Your task to perform on an android device: What's the weather going to be this weekend? Image 0: 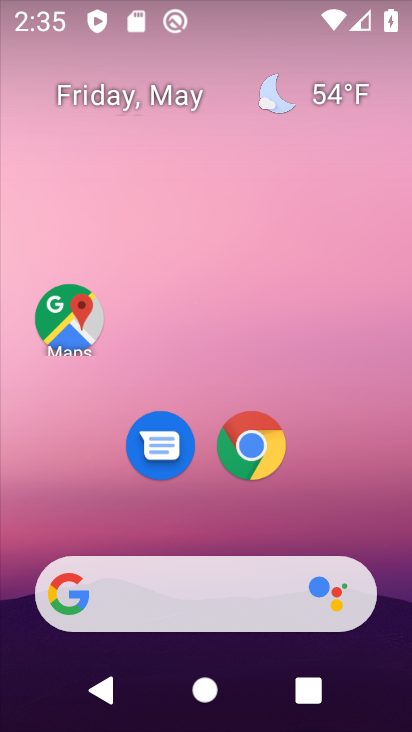
Step 0: drag from (390, 499) to (373, 122)
Your task to perform on an android device: What's the weather going to be this weekend? Image 1: 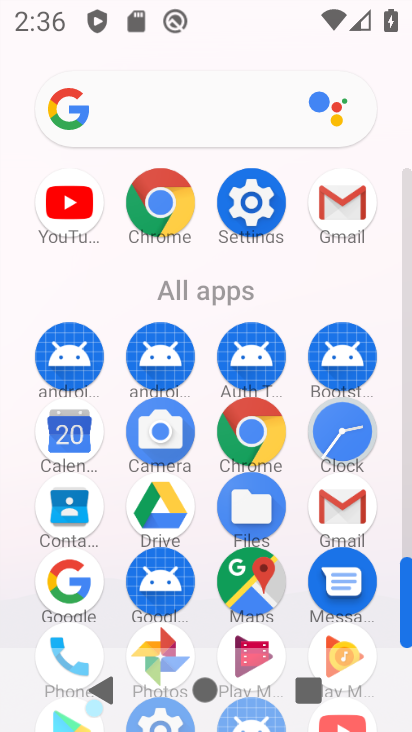
Step 1: click (243, 431)
Your task to perform on an android device: What's the weather going to be this weekend? Image 2: 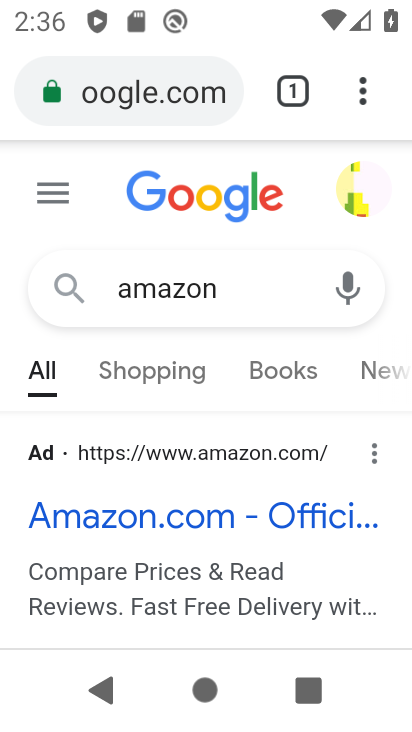
Step 2: click (145, 97)
Your task to perform on an android device: What's the weather going to be this weekend? Image 3: 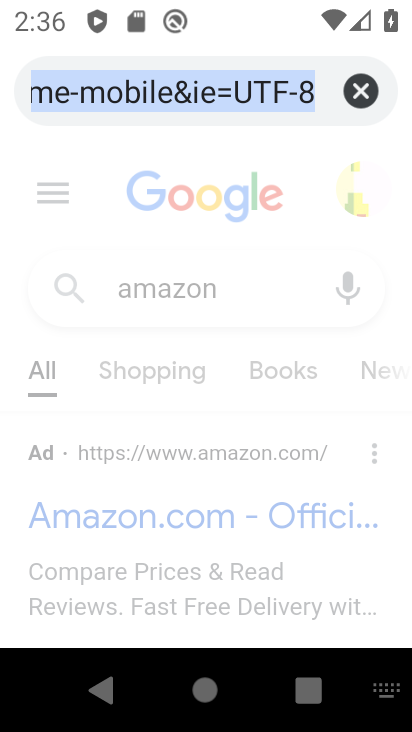
Step 3: click (365, 93)
Your task to perform on an android device: What's the weather going to be this weekend? Image 4: 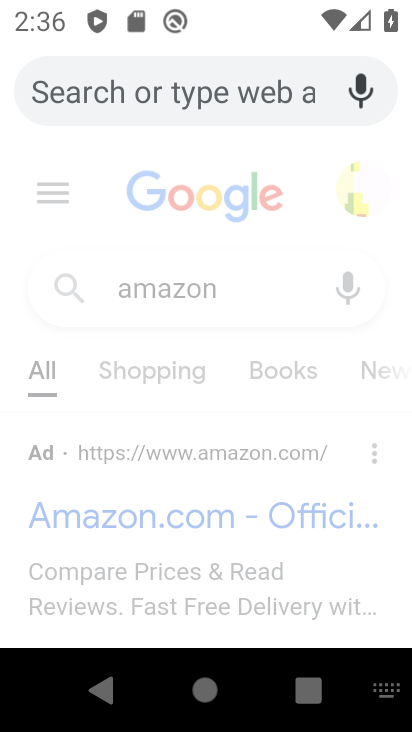
Step 4: type "what's the weather going to be this weekend "
Your task to perform on an android device: What's the weather going to be this weekend? Image 5: 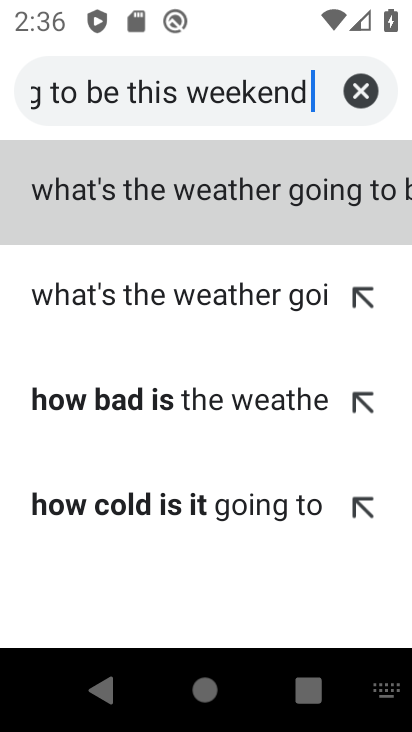
Step 5: click (312, 215)
Your task to perform on an android device: What's the weather going to be this weekend? Image 6: 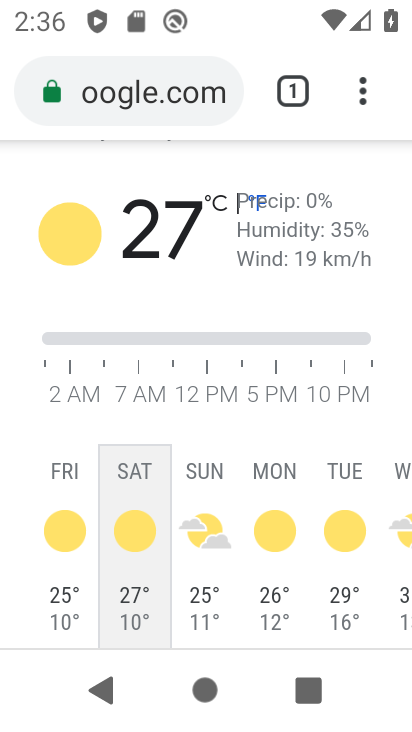
Step 6: task complete